Your task to perform on an android device: Open Amazon Image 0: 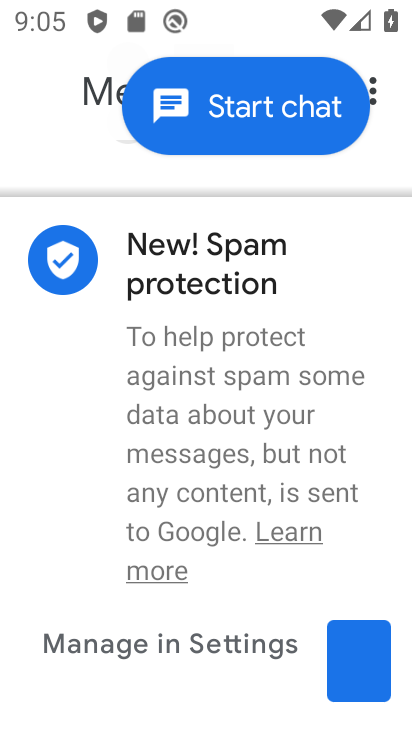
Step 0: press home button
Your task to perform on an android device: Open Amazon Image 1: 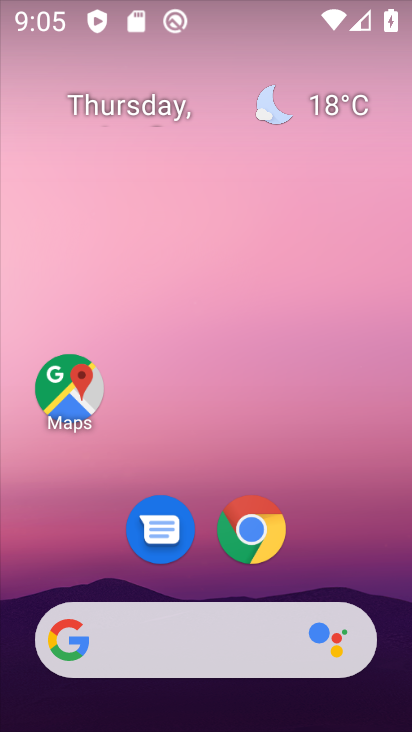
Step 1: click (256, 527)
Your task to perform on an android device: Open Amazon Image 2: 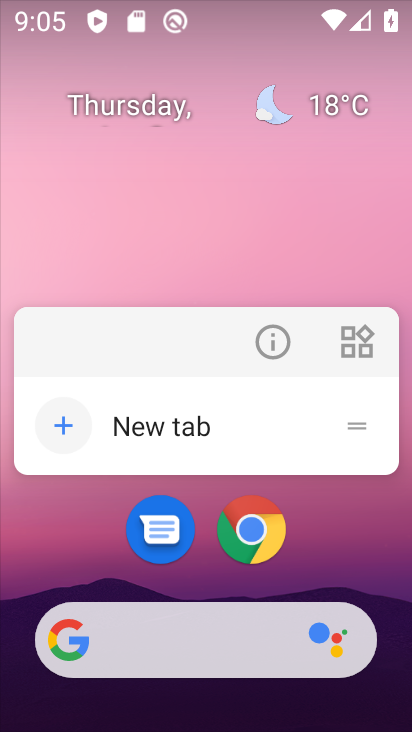
Step 2: click (244, 537)
Your task to perform on an android device: Open Amazon Image 3: 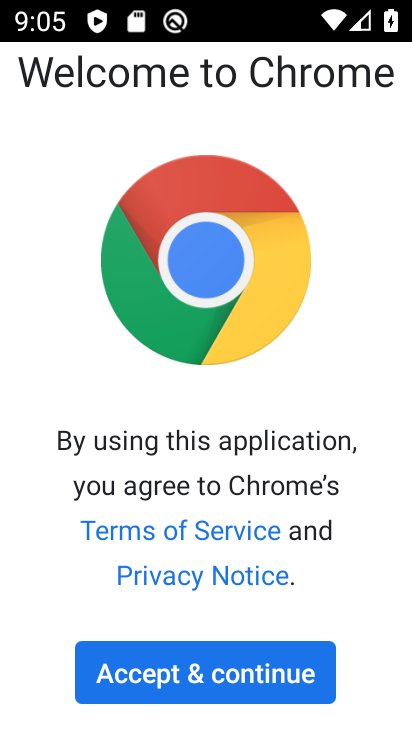
Step 3: click (187, 658)
Your task to perform on an android device: Open Amazon Image 4: 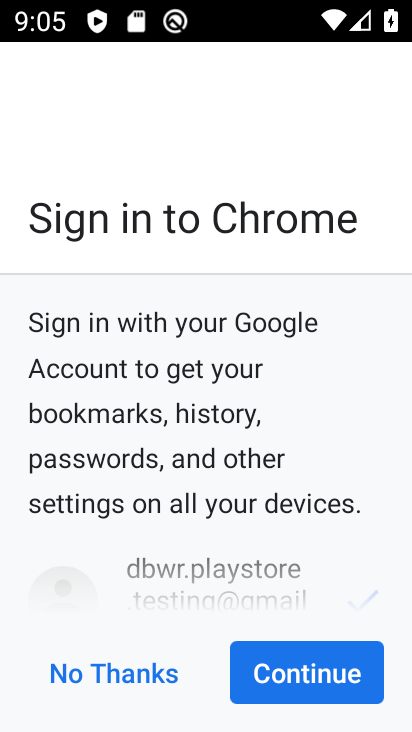
Step 4: click (349, 660)
Your task to perform on an android device: Open Amazon Image 5: 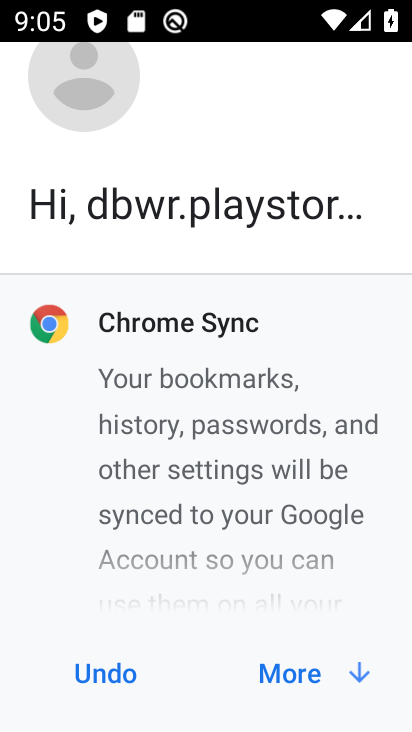
Step 5: click (349, 660)
Your task to perform on an android device: Open Amazon Image 6: 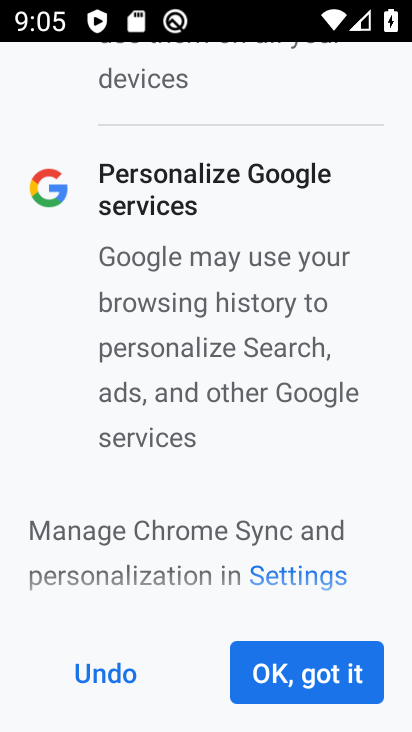
Step 6: click (281, 682)
Your task to perform on an android device: Open Amazon Image 7: 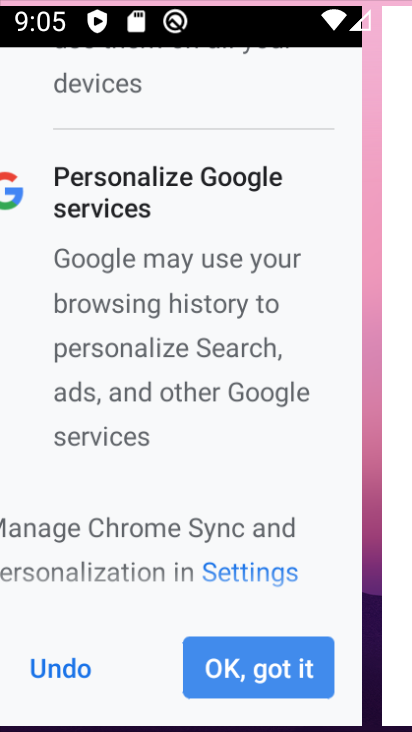
Step 7: click (281, 682)
Your task to perform on an android device: Open Amazon Image 8: 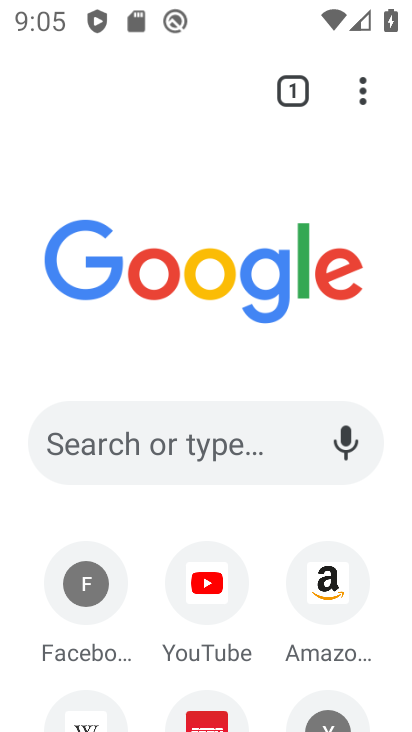
Step 8: click (166, 437)
Your task to perform on an android device: Open Amazon Image 9: 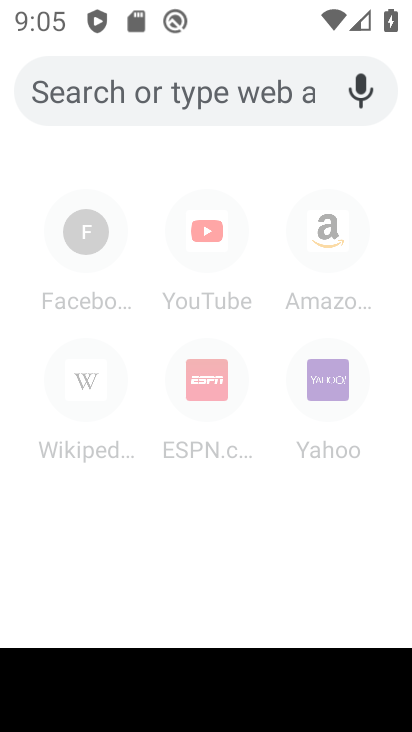
Step 9: type " Amazon"
Your task to perform on an android device: Open Amazon Image 10: 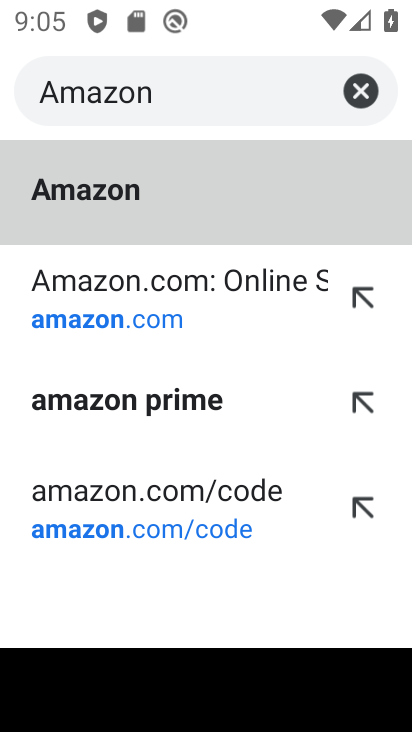
Step 10: click (102, 309)
Your task to perform on an android device: Open Amazon Image 11: 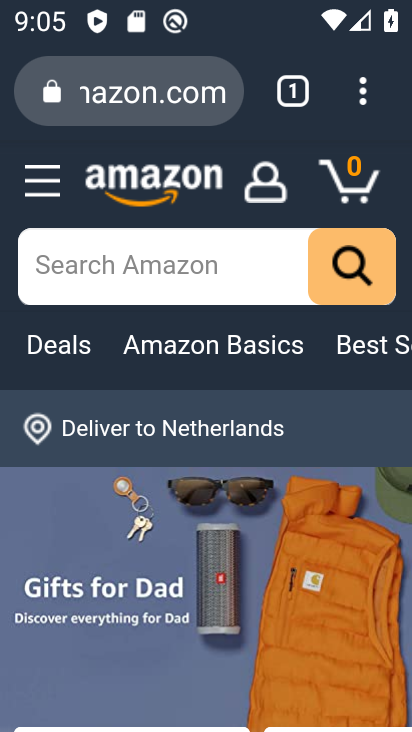
Step 11: task complete